Your task to perform on an android device: Check the weather Image 0: 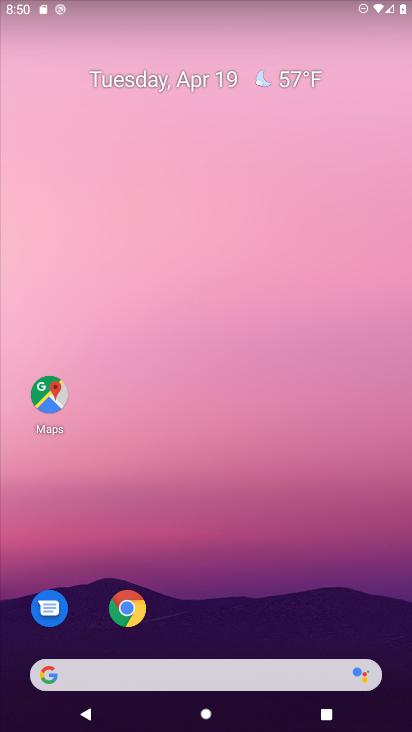
Step 0: drag from (235, 467) to (232, 138)
Your task to perform on an android device: Check the weather Image 1: 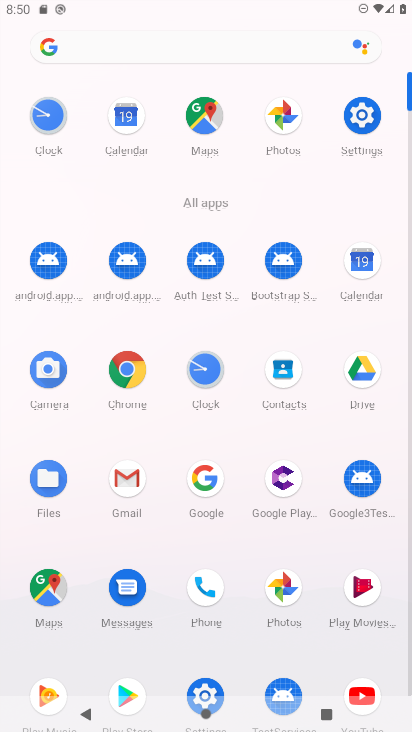
Step 1: click (205, 40)
Your task to perform on an android device: Check the weather Image 2: 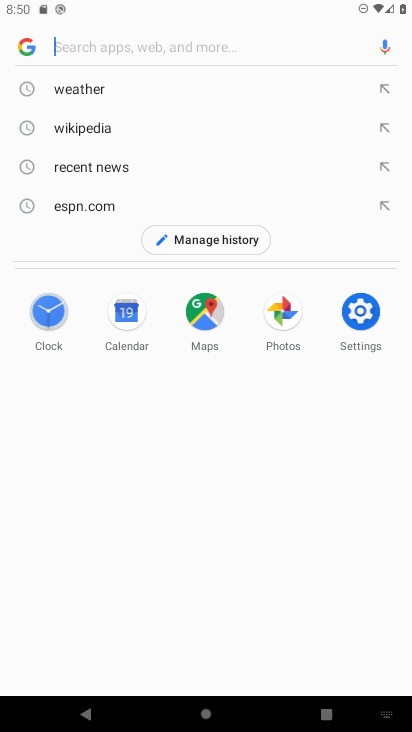
Step 2: click (142, 93)
Your task to perform on an android device: Check the weather Image 3: 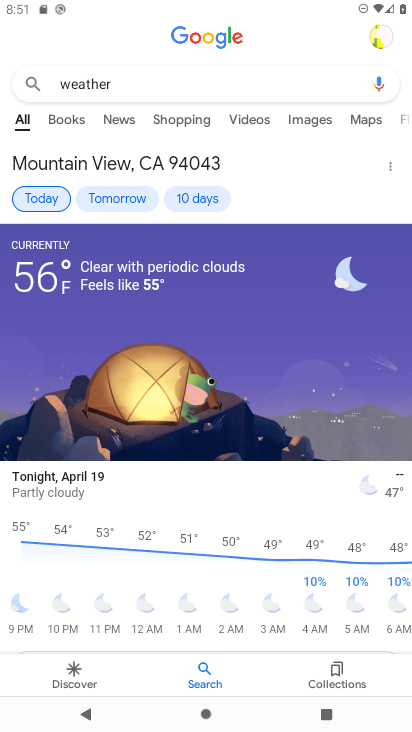
Step 3: task complete